Your task to perform on an android device: star an email in the gmail app Image 0: 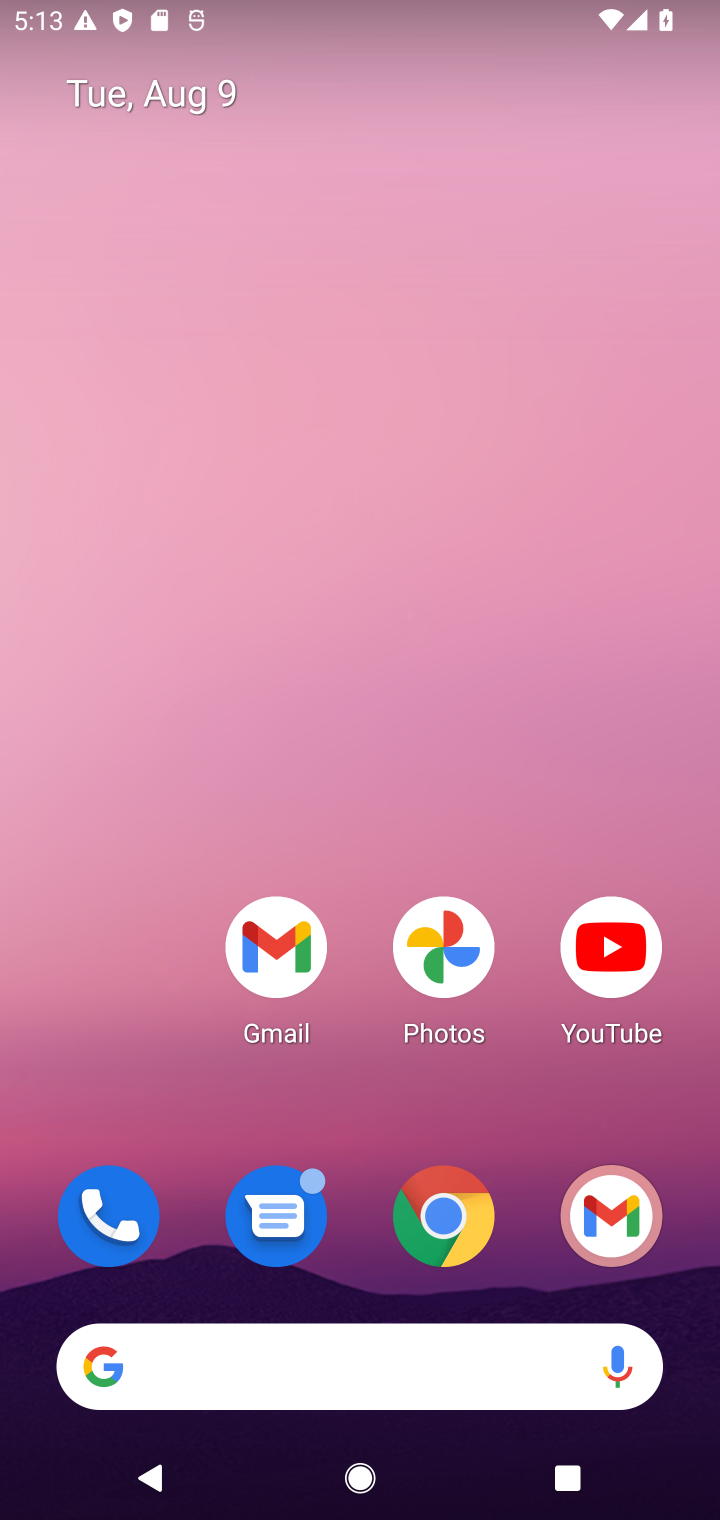
Step 0: click (582, 1221)
Your task to perform on an android device: star an email in the gmail app Image 1: 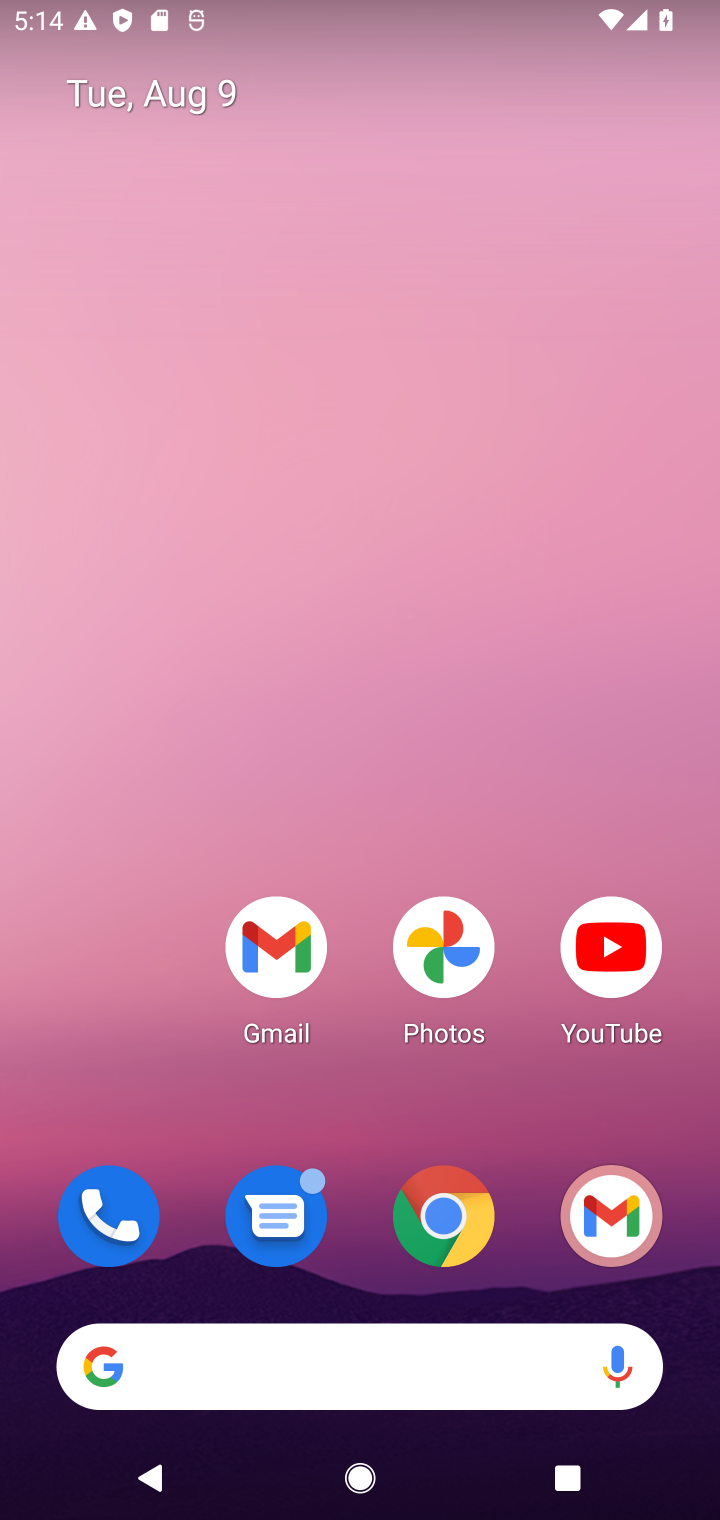
Step 1: click (223, 331)
Your task to perform on an android device: star an email in the gmail app Image 2: 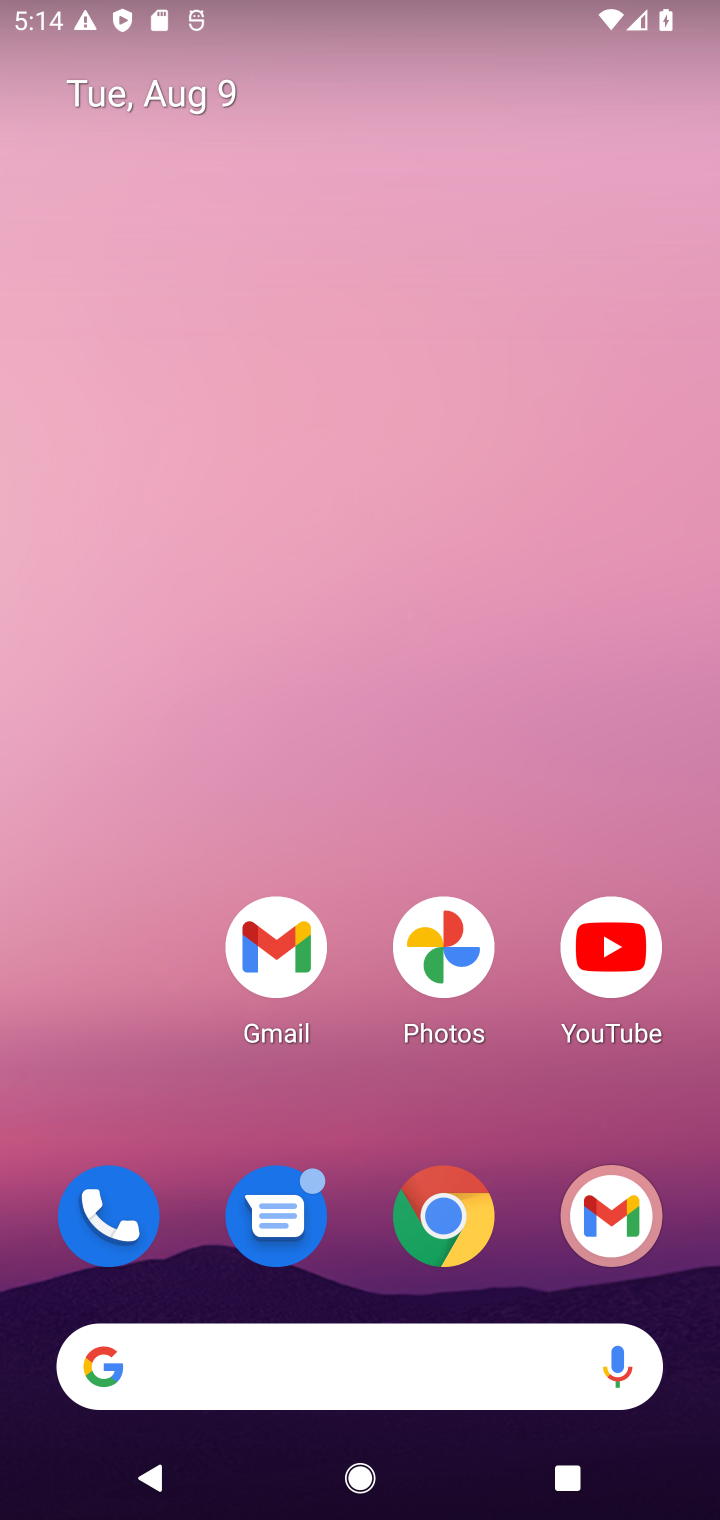
Step 2: drag from (291, 1320) to (297, 428)
Your task to perform on an android device: star an email in the gmail app Image 3: 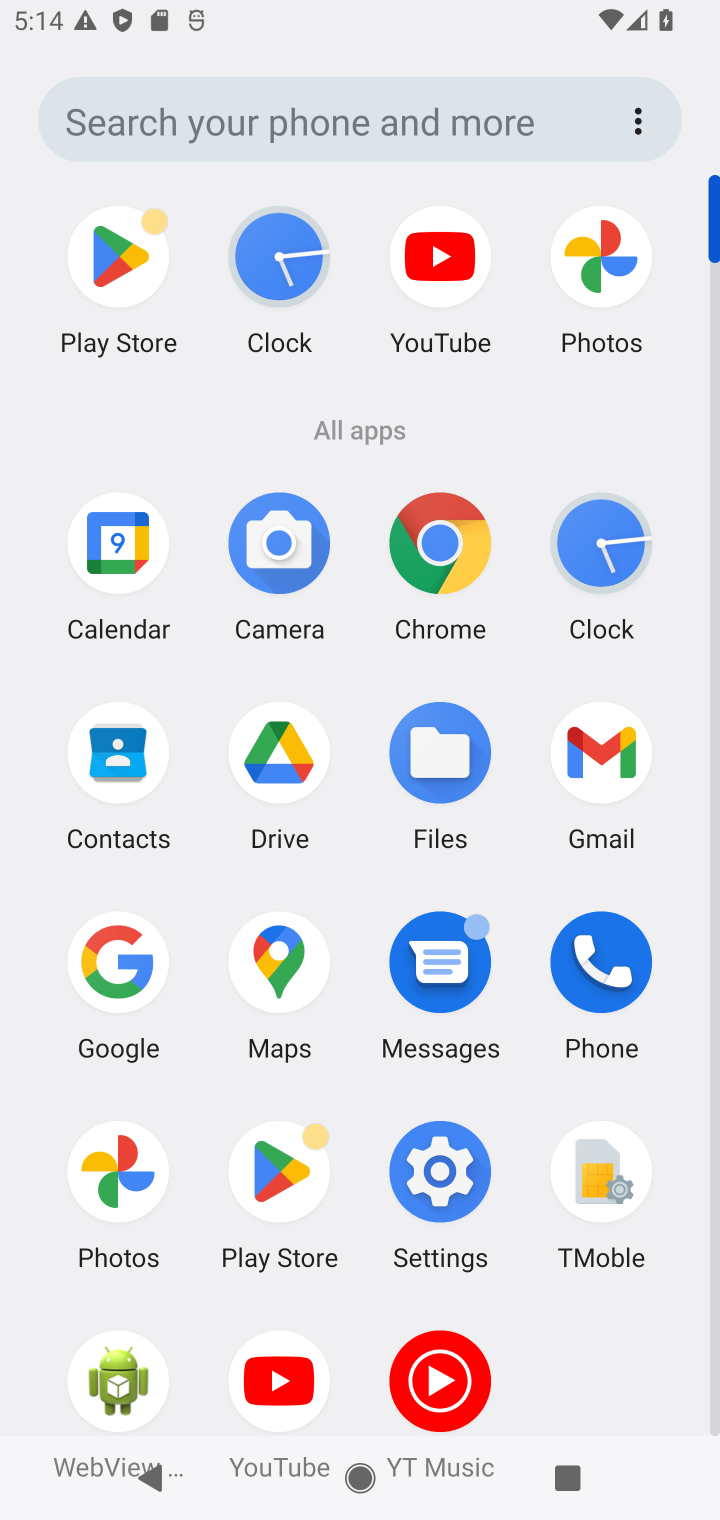
Step 3: click (602, 754)
Your task to perform on an android device: star an email in the gmail app Image 4: 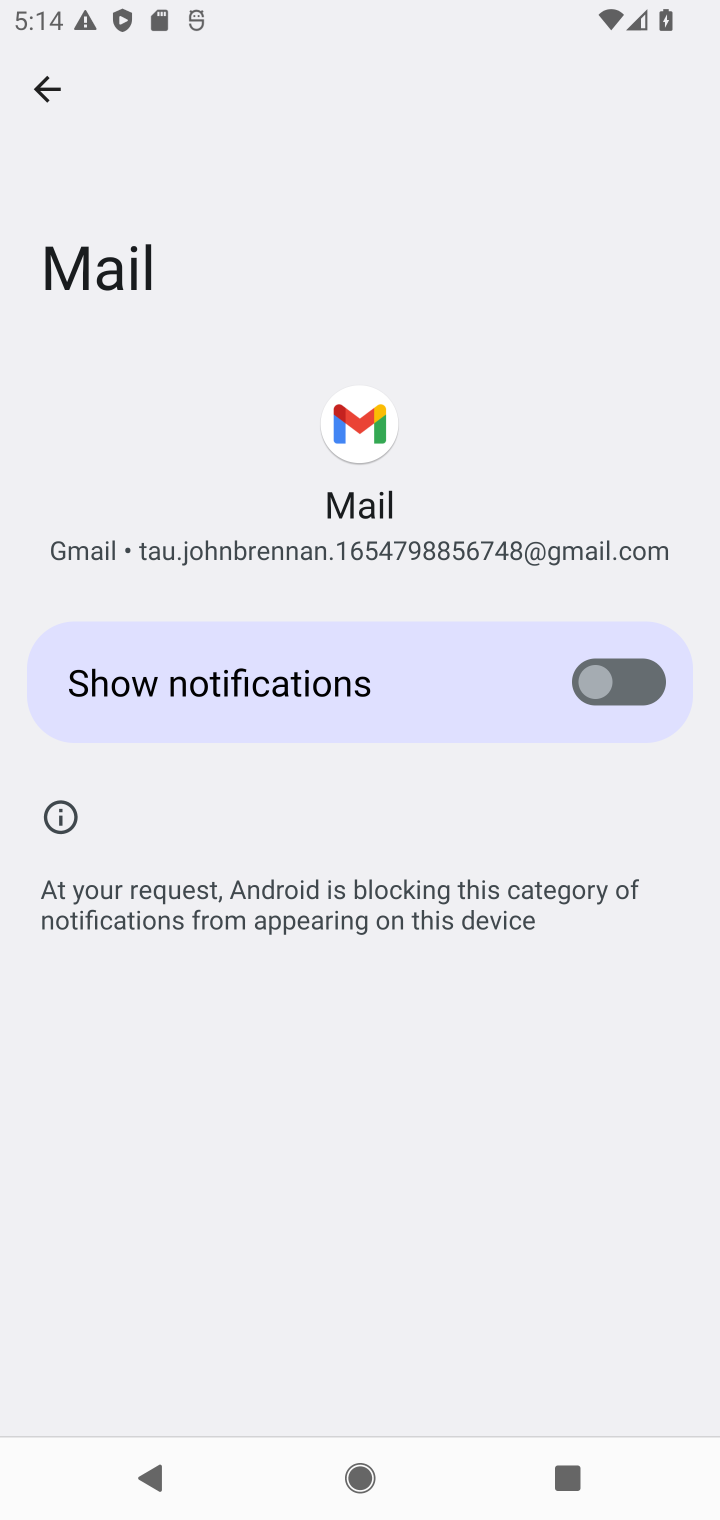
Step 4: click (61, 80)
Your task to perform on an android device: star an email in the gmail app Image 5: 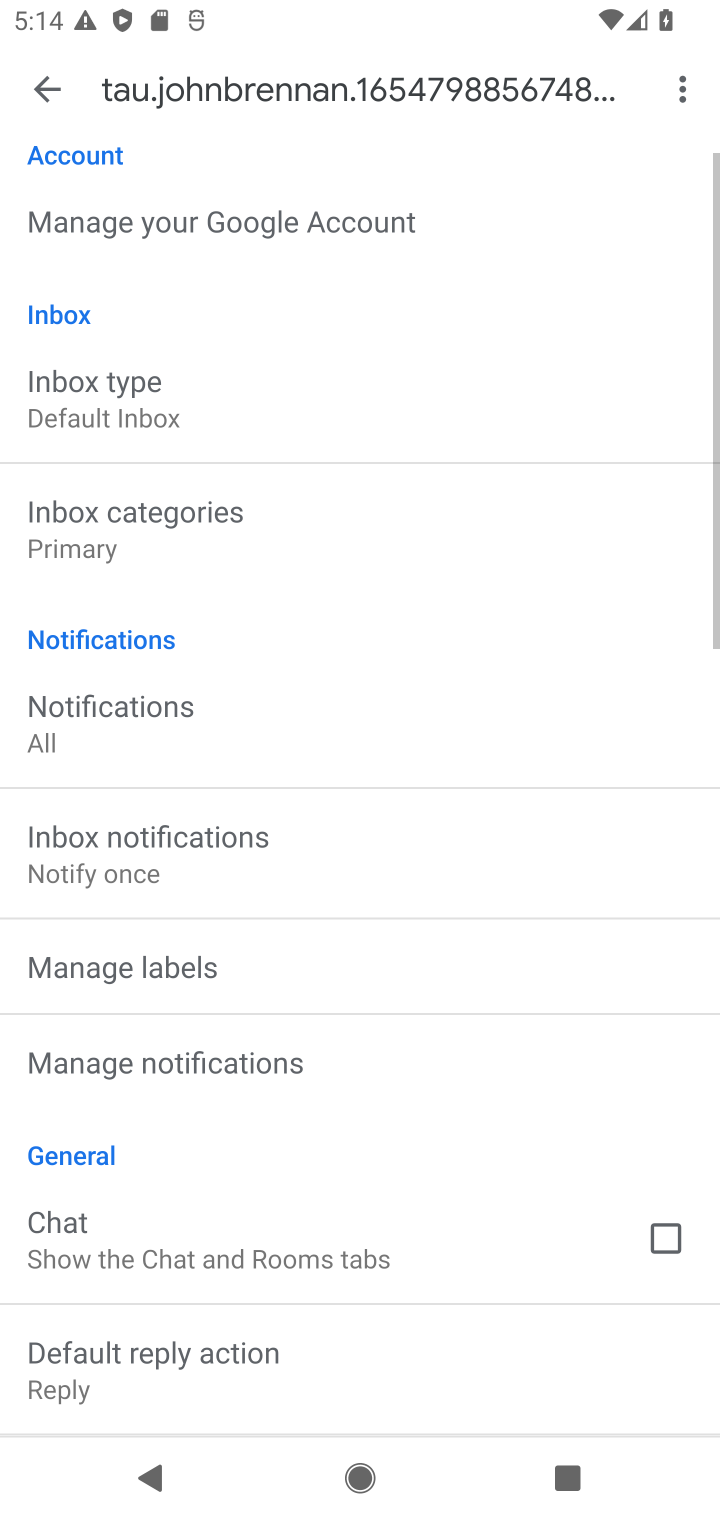
Step 5: click (33, 79)
Your task to perform on an android device: star an email in the gmail app Image 6: 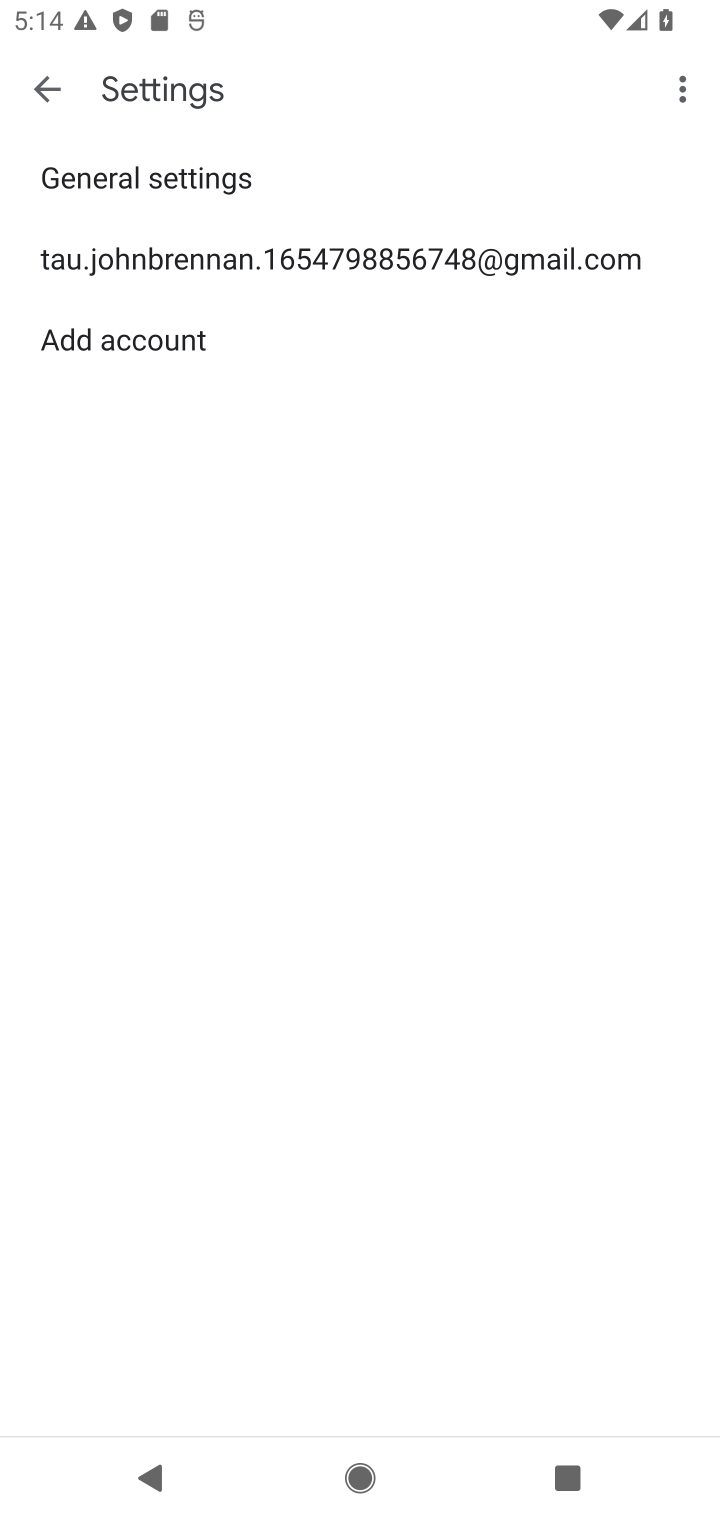
Step 6: click (52, 103)
Your task to perform on an android device: star an email in the gmail app Image 7: 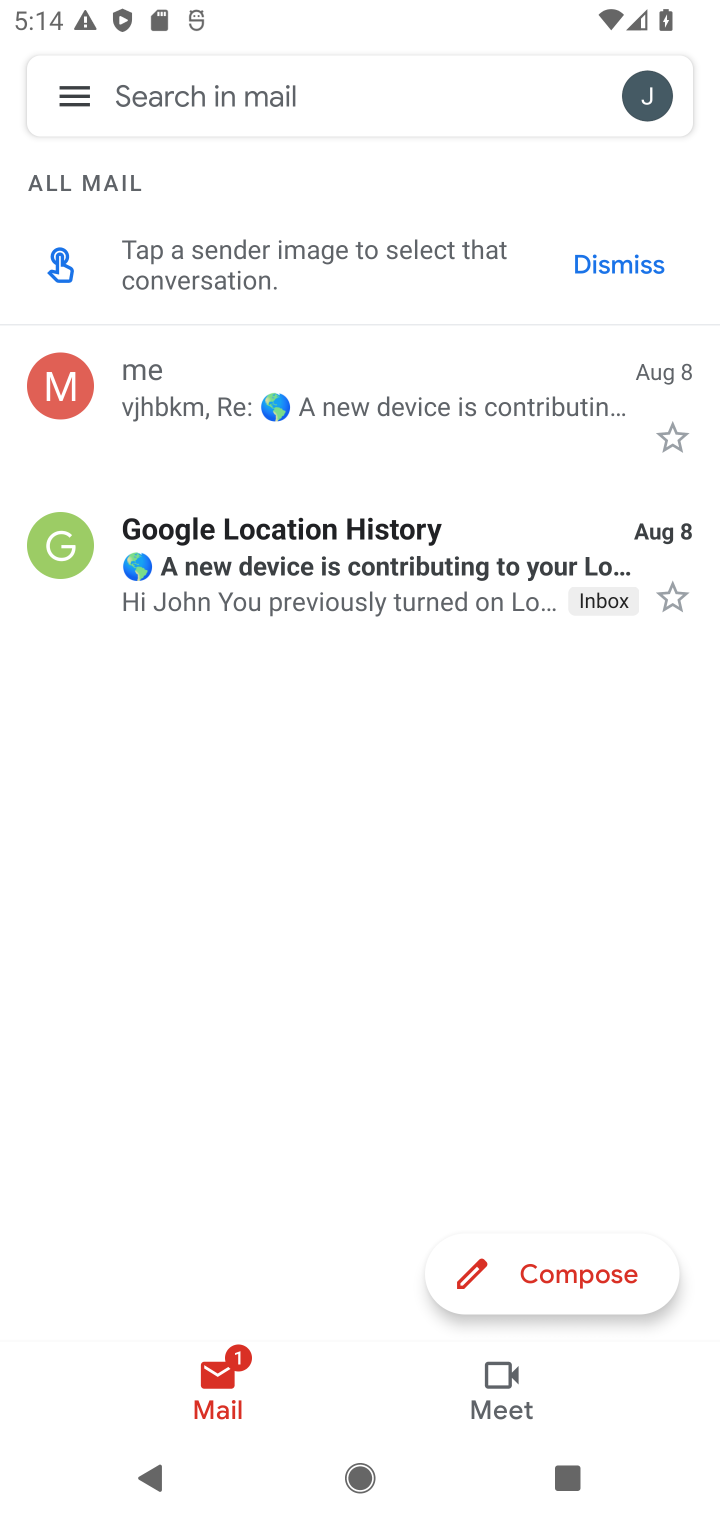
Step 7: click (671, 605)
Your task to perform on an android device: star an email in the gmail app Image 8: 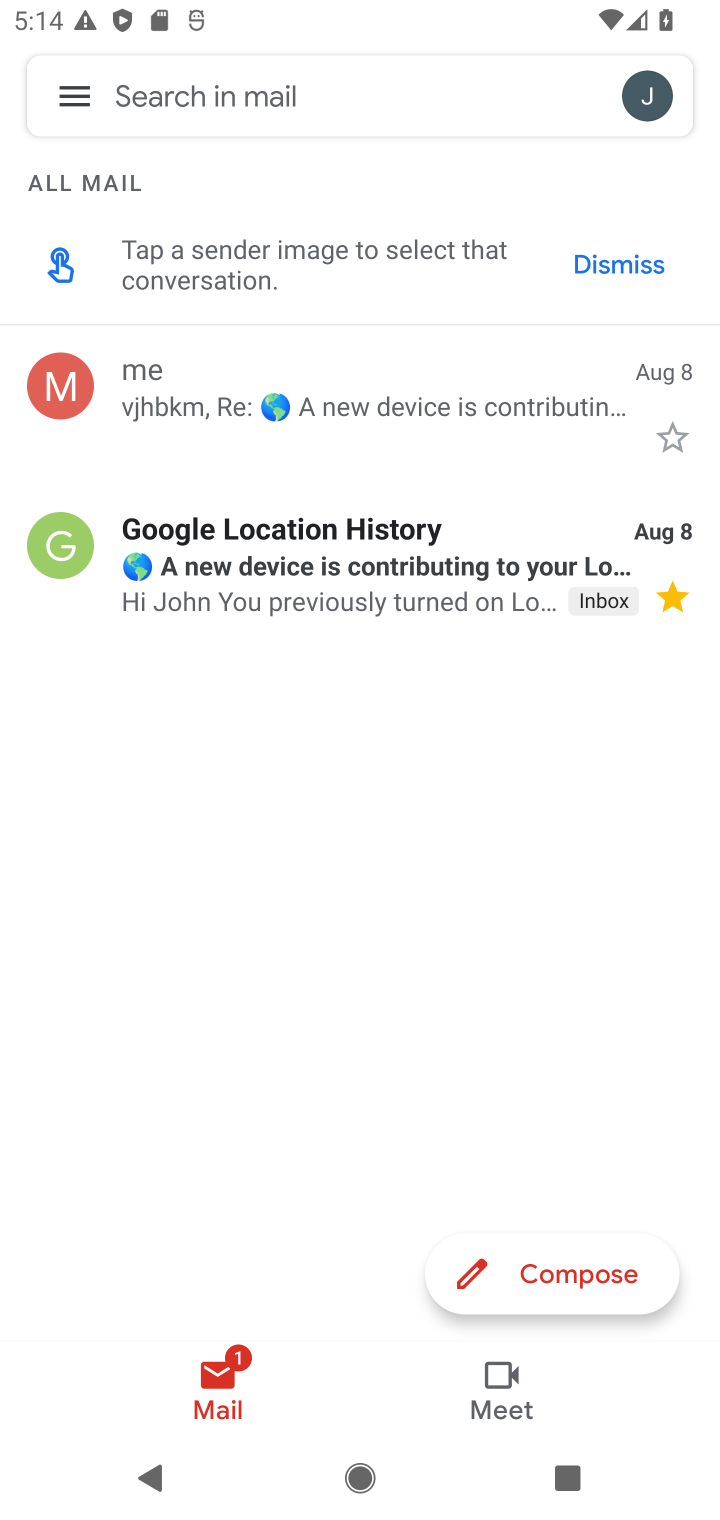
Step 8: task complete